Your task to perform on an android device: empty trash in the gmail app Image 0: 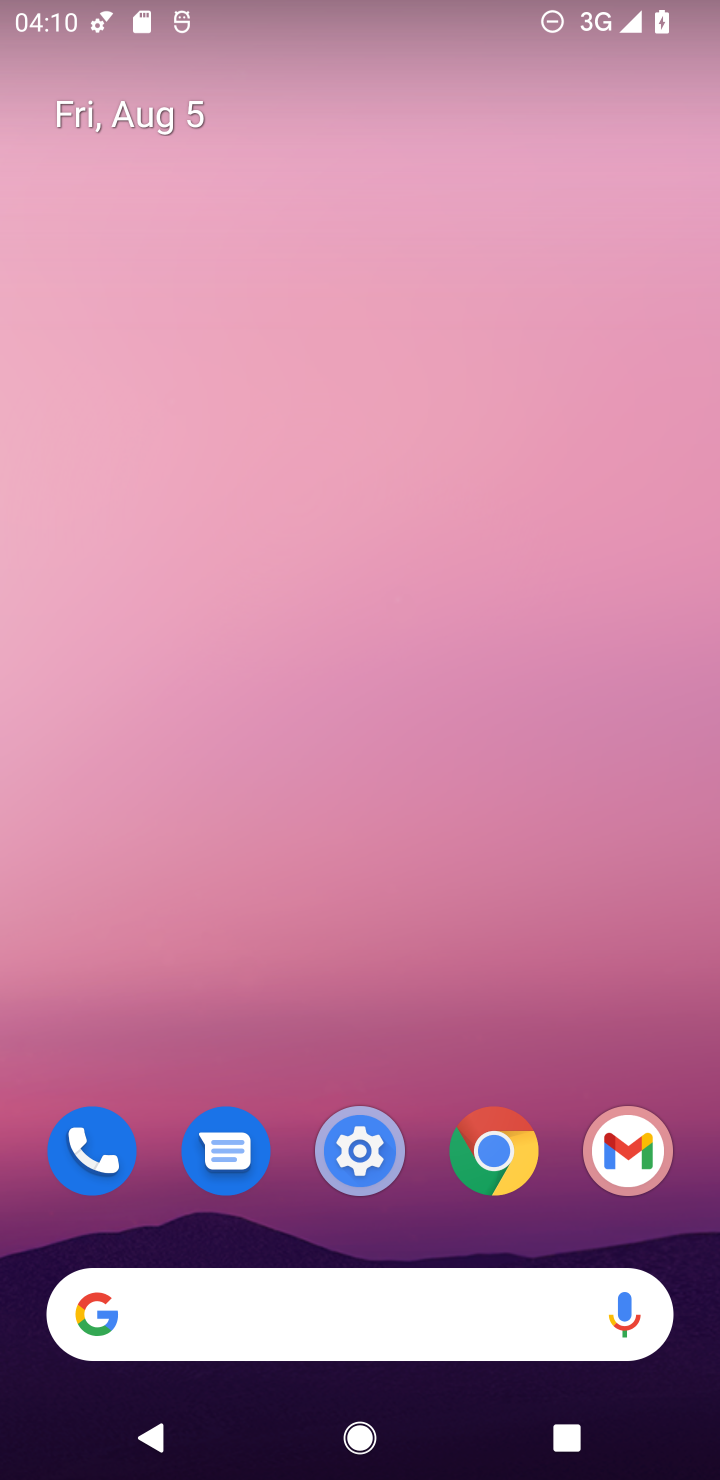
Step 0: click (630, 1131)
Your task to perform on an android device: empty trash in the gmail app Image 1: 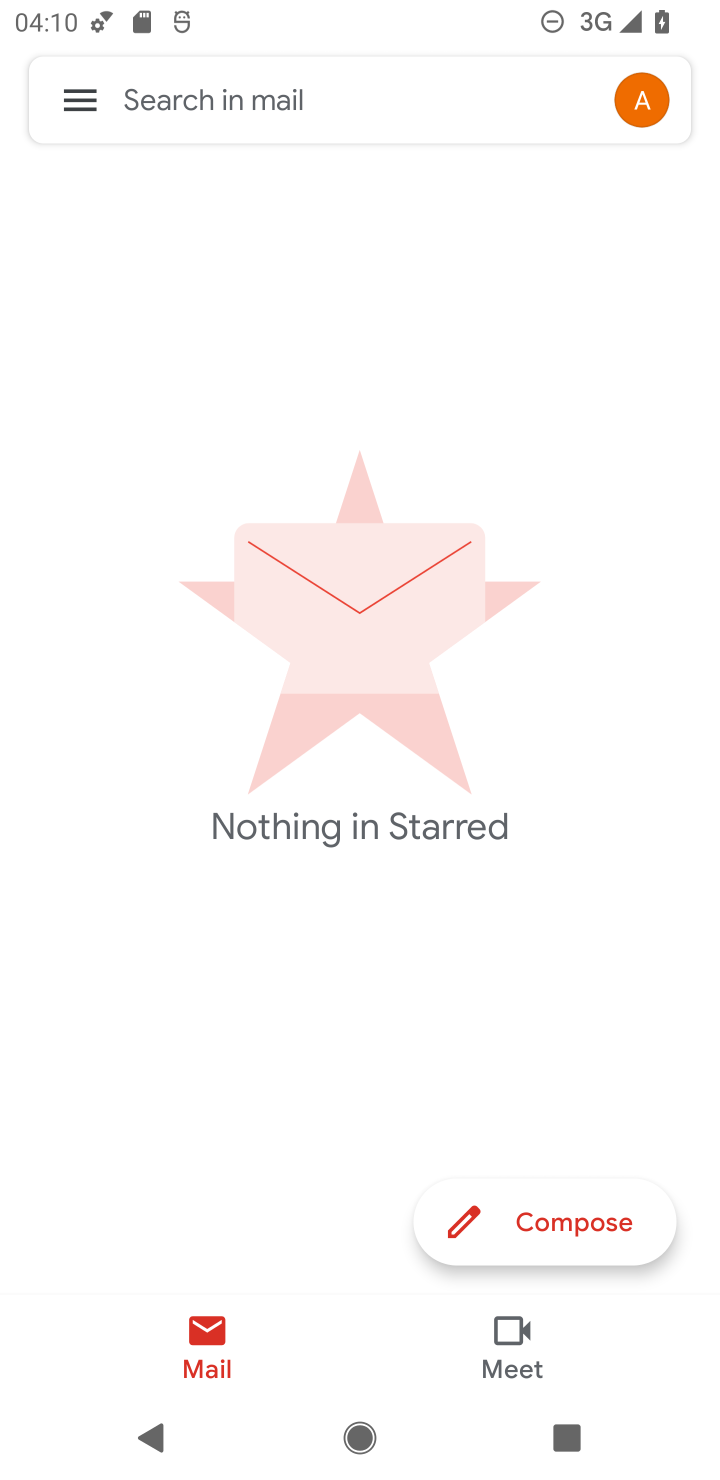
Step 1: click (70, 90)
Your task to perform on an android device: empty trash in the gmail app Image 2: 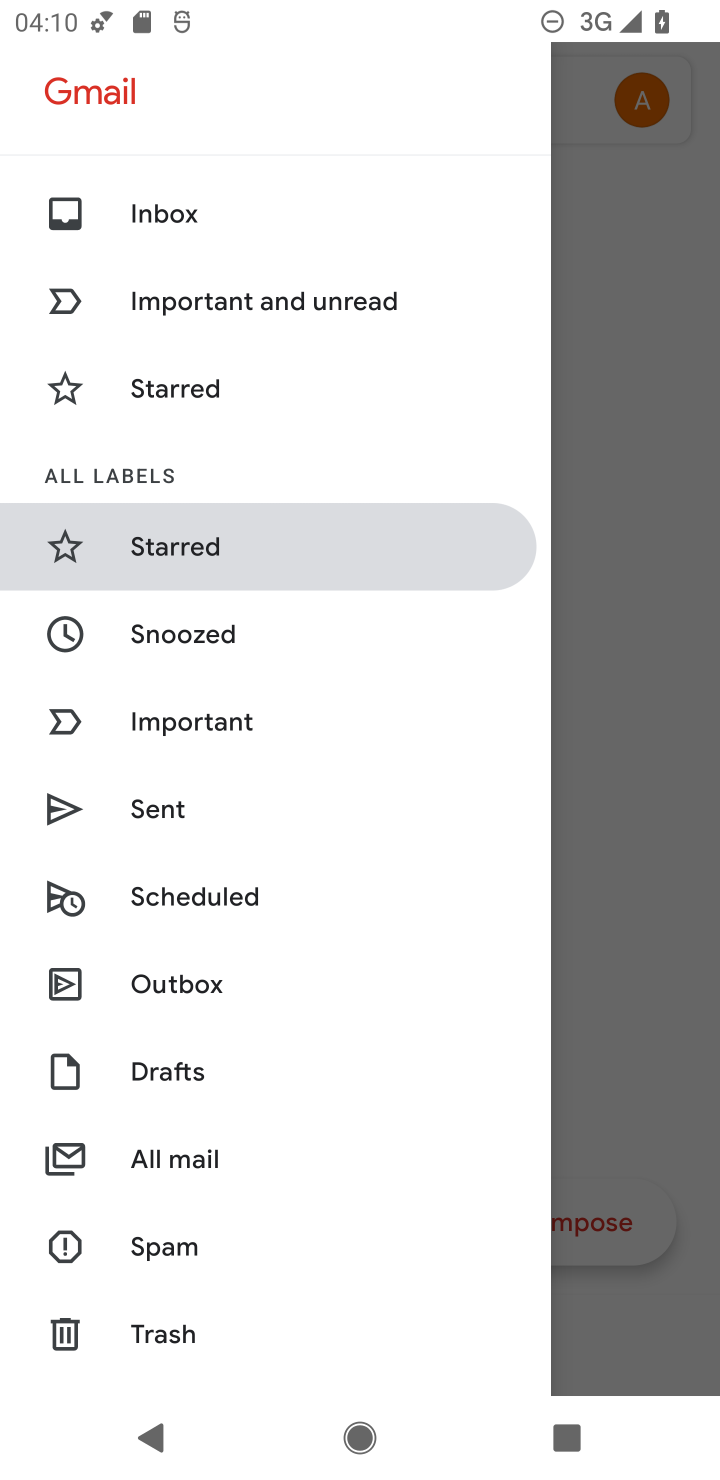
Step 2: click (199, 1320)
Your task to perform on an android device: empty trash in the gmail app Image 3: 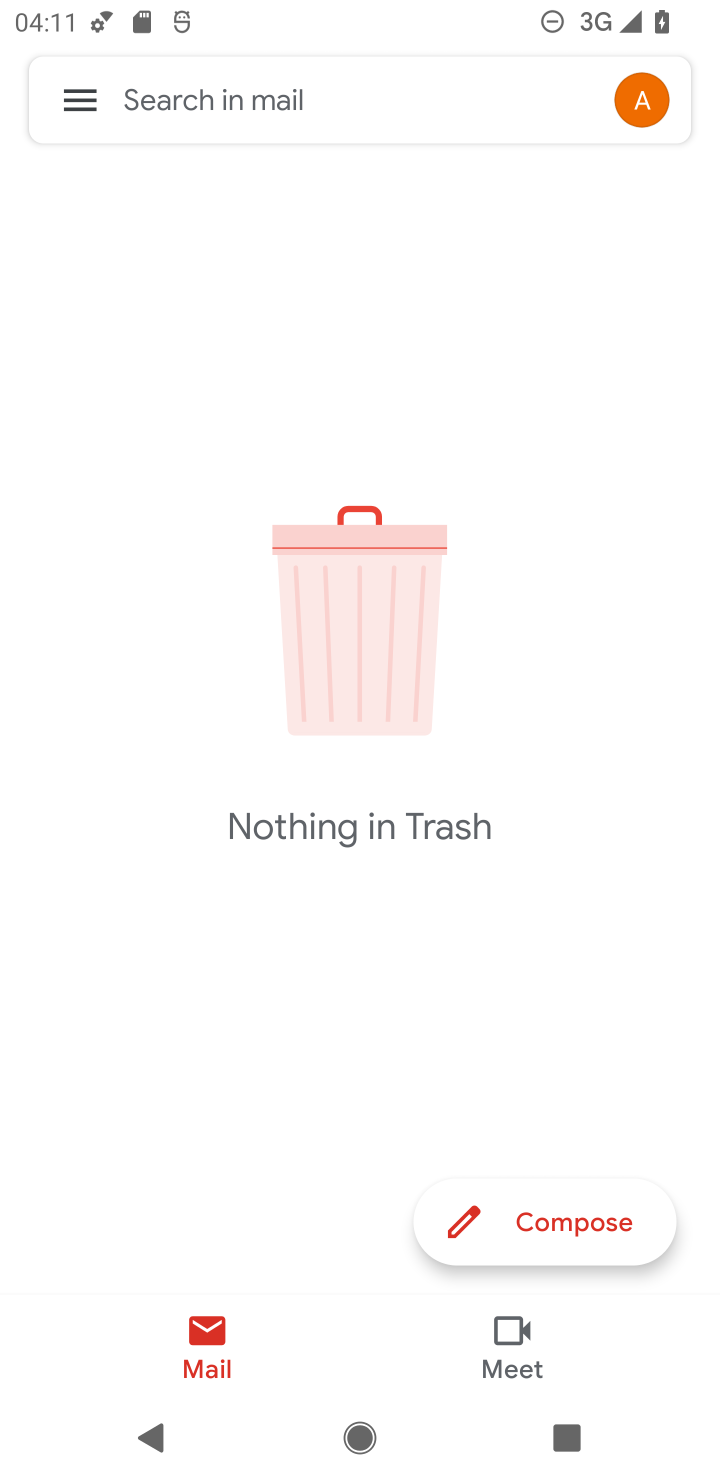
Step 3: task complete